Your task to perform on an android device: Open Android settings Image 0: 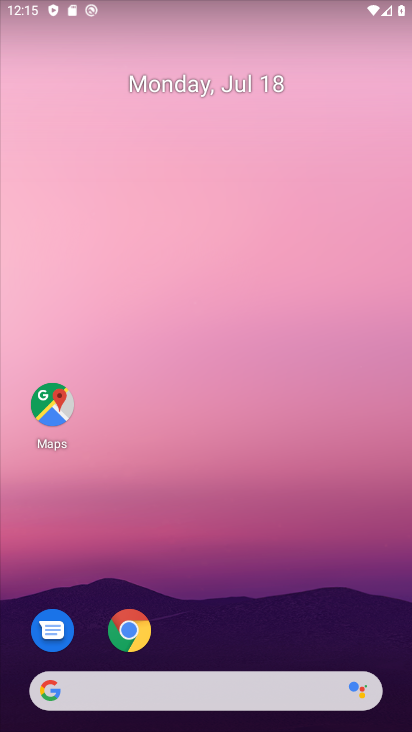
Step 0: drag from (239, 346) to (225, 196)
Your task to perform on an android device: Open Android settings Image 1: 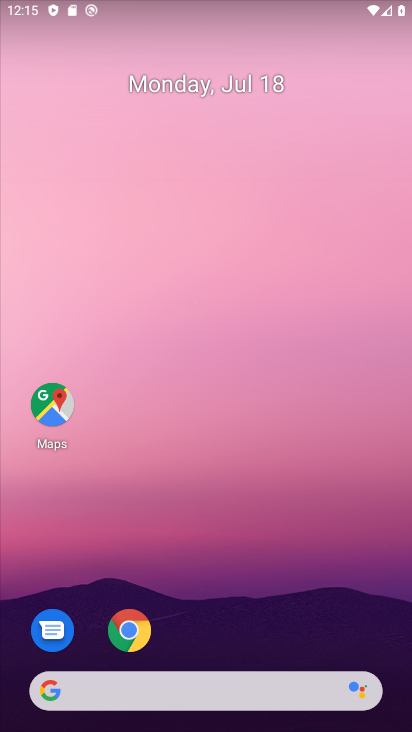
Step 1: drag from (218, 420) to (223, 30)
Your task to perform on an android device: Open Android settings Image 2: 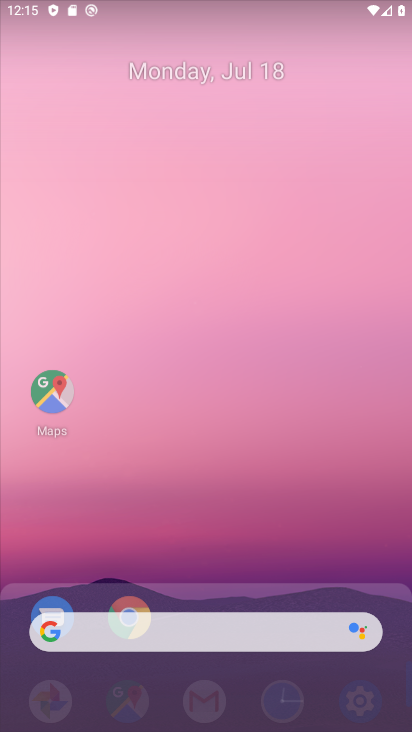
Step 2: drag from (210, 422) to (265, 8)
Your task to perform on an android device: Open Android settings Image 3: 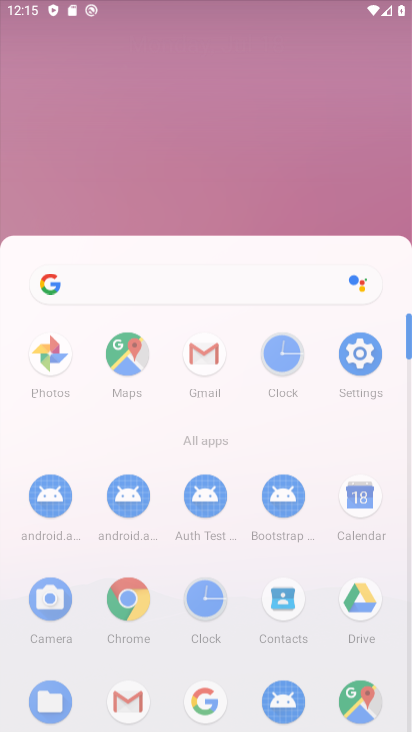
Step 3: drag from (220, 694) to (184, 104)
Your task to perform on an android device: Open Android settings Image 4: 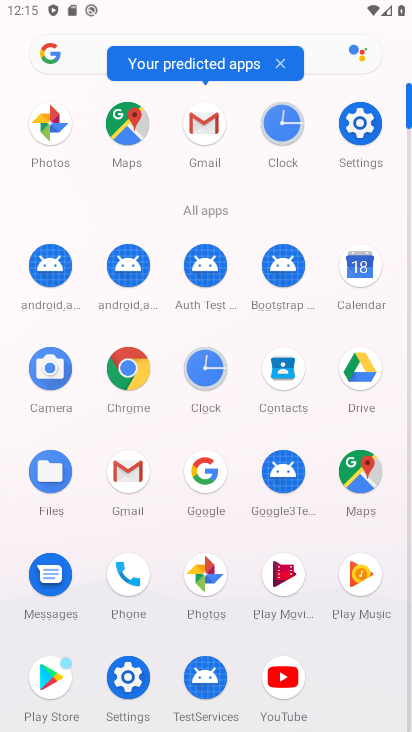
Step 4: click (361, 139)
Your task to perform on an android device: Open Android settings Image 5: 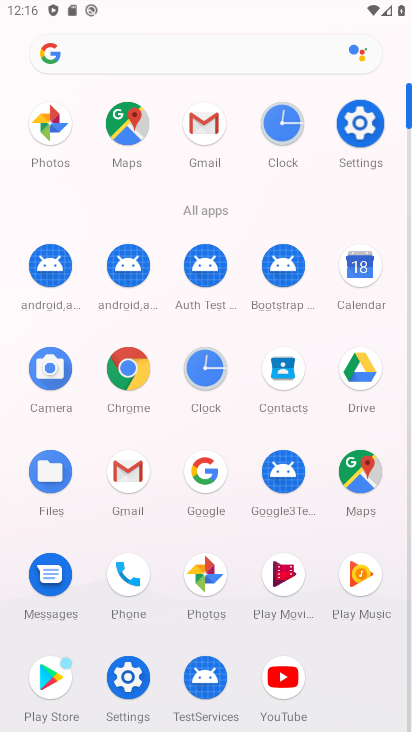
Step 5: click (355, 142)
Your task to perform on an android device: Open Android settings Image 6: 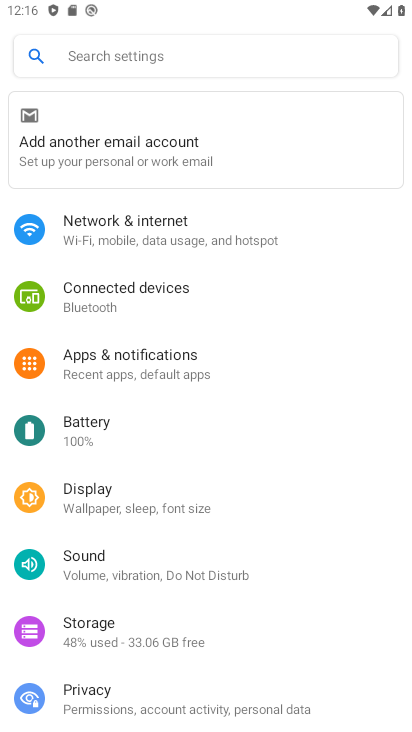
Step 6: drag from (166, 524) to (96, 3)
Your task to perform on an android device: Open Android settings Image 7: 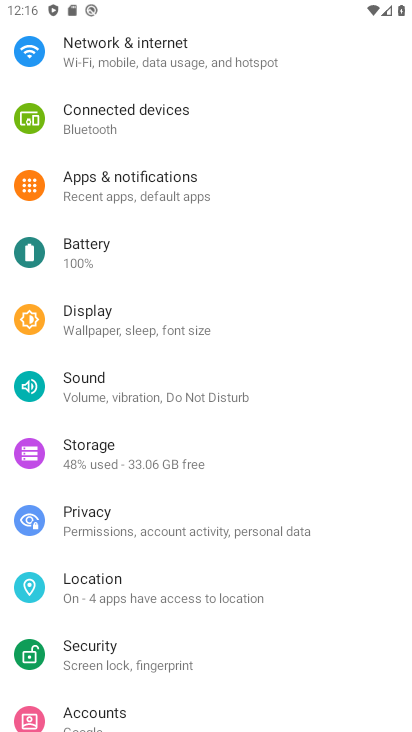
Step 7: drag from (149, 339) to (107, 170)
Your task to perform on an android device: Open Android settings Image 8: 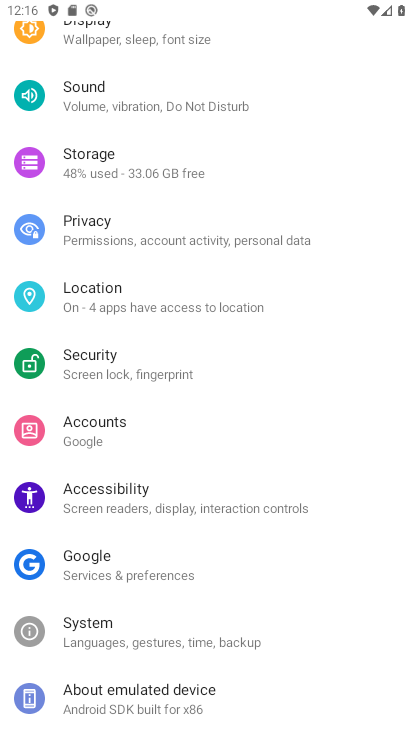
Step 8: drag from (131, 513) to (112, 94)
Your task to perform on an android device: Open Android settings Image 9: 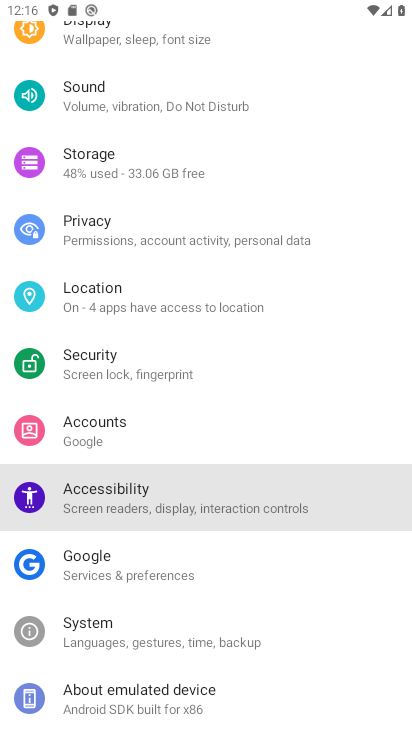
Step 9: drag from (157, 322) to (122, 182)
Your task to perform on an android device: Open Android settings Image 10: 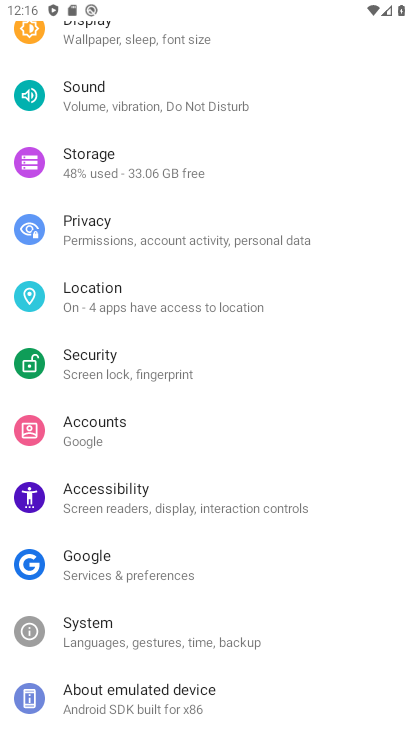
Step 10: drag from (133, 609) to (134, 103)
Your task to perform on an android device: Open Android settings Image 11: 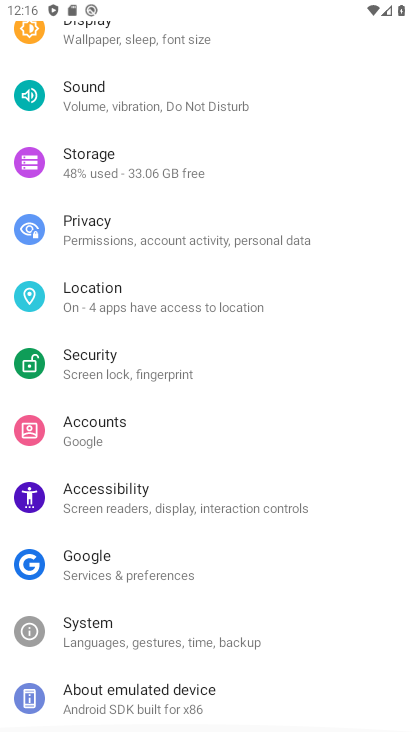
Step 11: click (135, 690)
Your task to perform on an android device: Open Android settings Image 12: 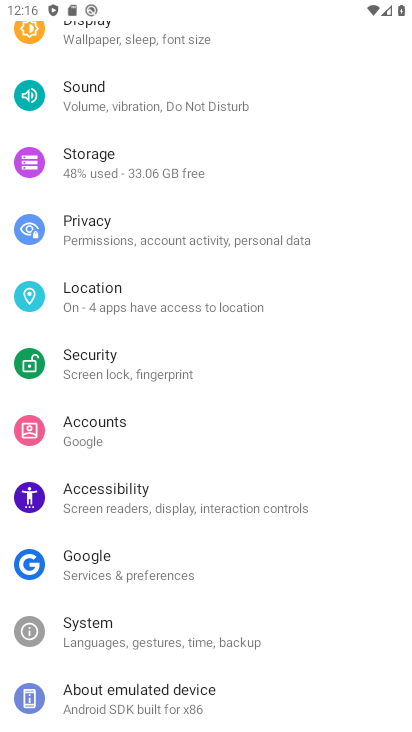
Step 12: click (138, 700)
Your task to perform on an android device: Open Android settings Image 13: 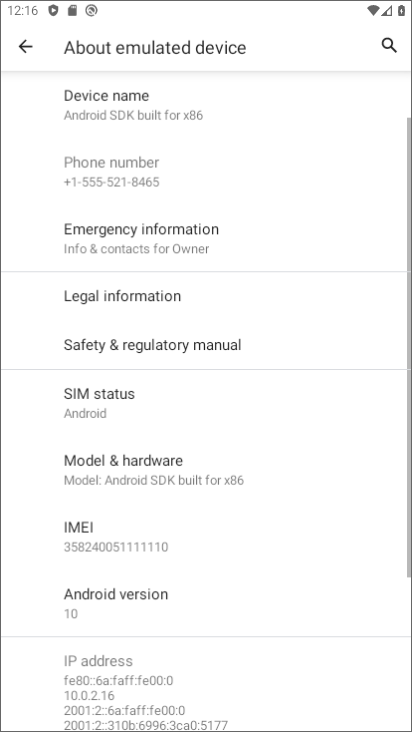
Step 13: click (138, 700)
Your task to perform on an android device: Open Android settings Image 14: 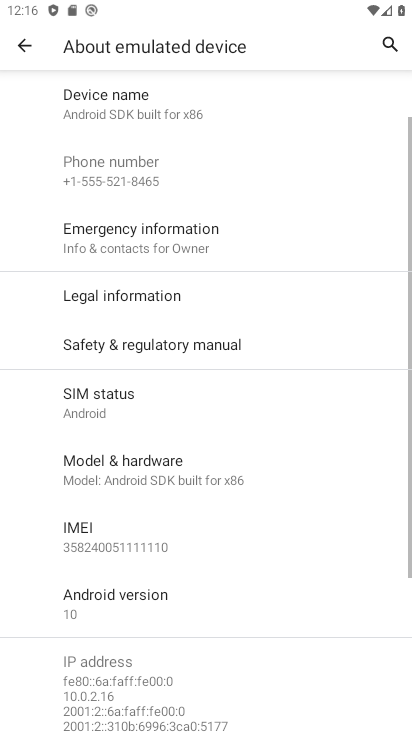
Step 14: click (142, 698)
Your task to perform on an android device: Open Android settings Image 15: 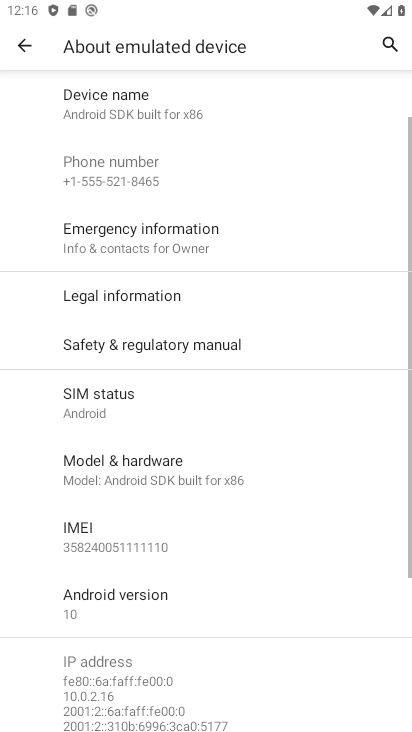
Step 15: task complete